Your task to perform on an android device: turn on wifi Image 0: 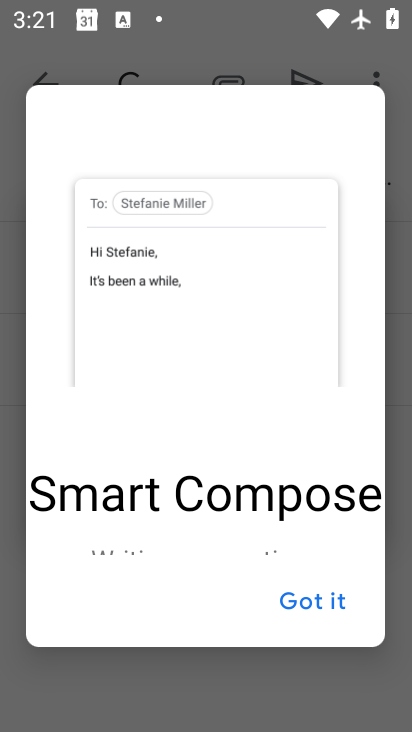
Step 0: press home button
Your task to perform on an android device: turn on wifi Image 1: 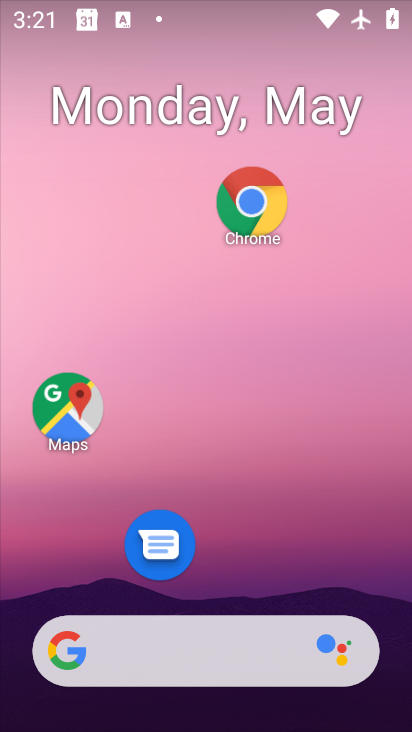
Step 1: drag from (234, 582) to (196, 168)
Your task to perform on an android device: turn on wifi Image 2: 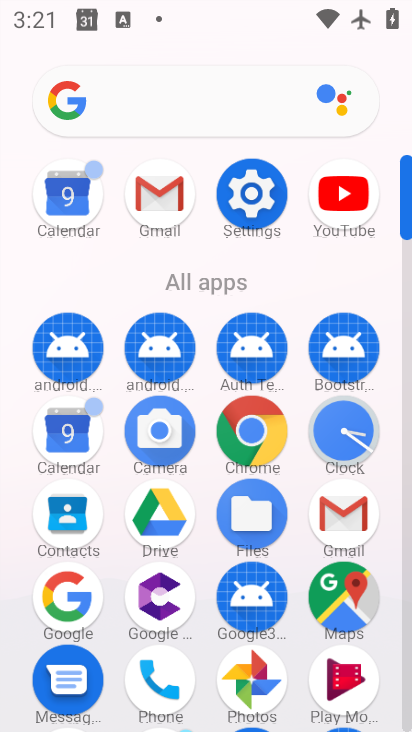
Step 2: click (227, 187)
Your task to perform on an android device: turn on wifi Image 3: 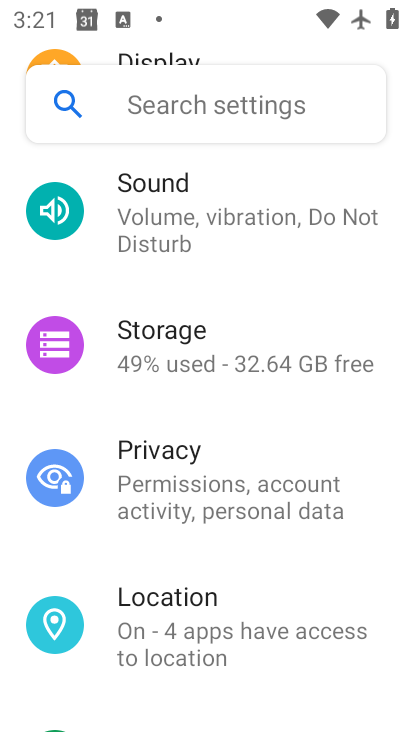
Step 3: drag from (208, 212) to (229, 553)
Your task to perform on an android device: turn on wifi Image 4: 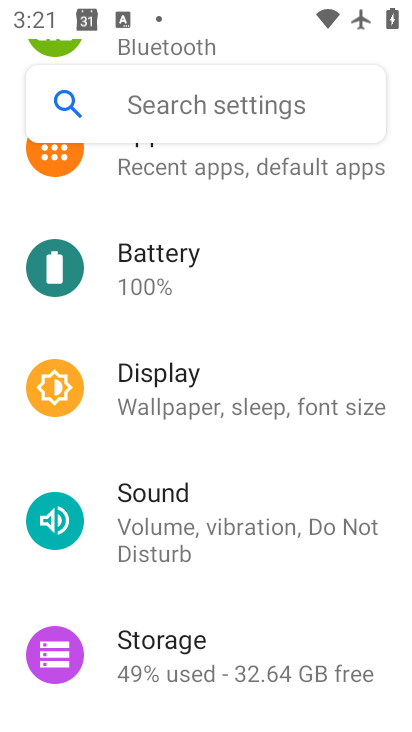
Step 4: drag from (184, 219) to (203, 514)
Your task to perform on an android device: turn on wifi Image 5: 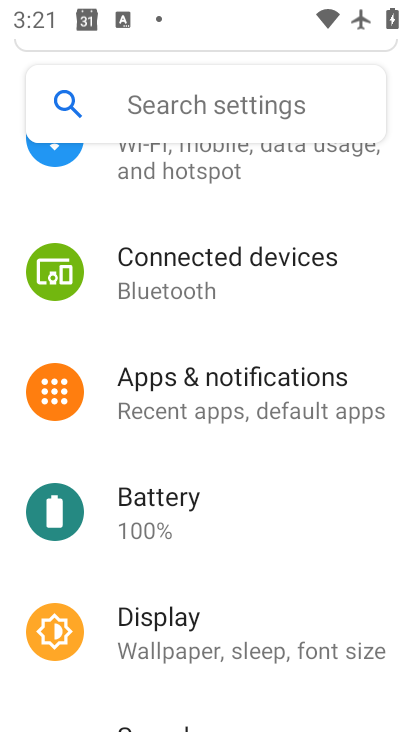
Step 5: drag from (153, 204) to (172, 472)
Your task to perform on an android device: turn on wifi Image 6: 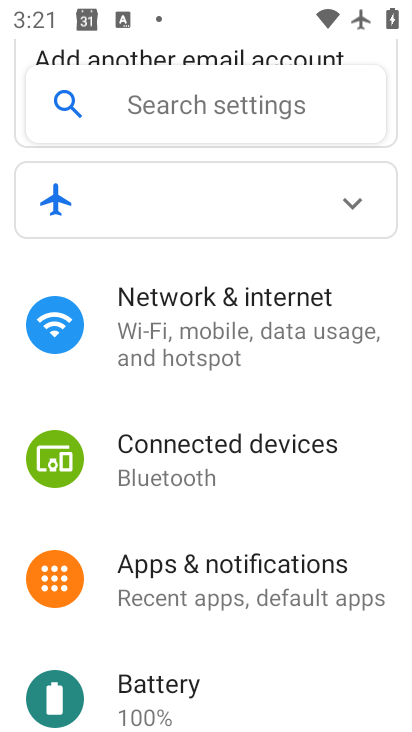
Step 6: drag from (166, 261) to (166, 333)
Your task to perform on an android device: turn on wifi Image 7: 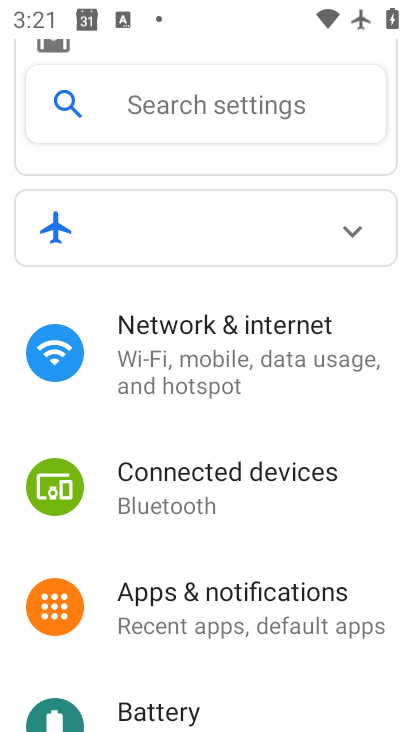
Step 7: click (166, 333)
Your task to perform on an android device: turn on wifi Image 8: 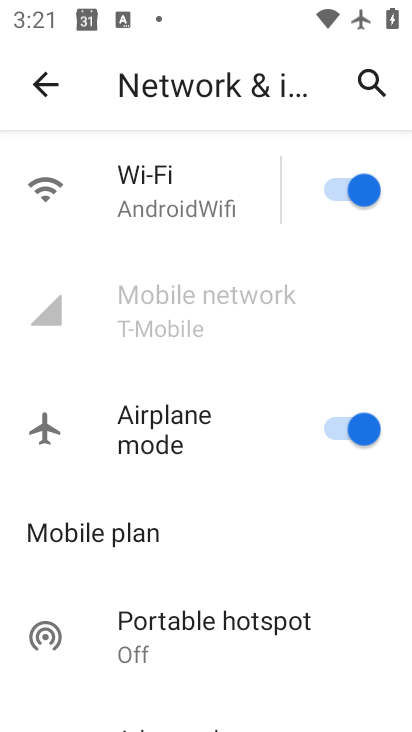
Step 8: task complete